Your task to perform on an android device: Empty the shopping cart on target. Image 0: 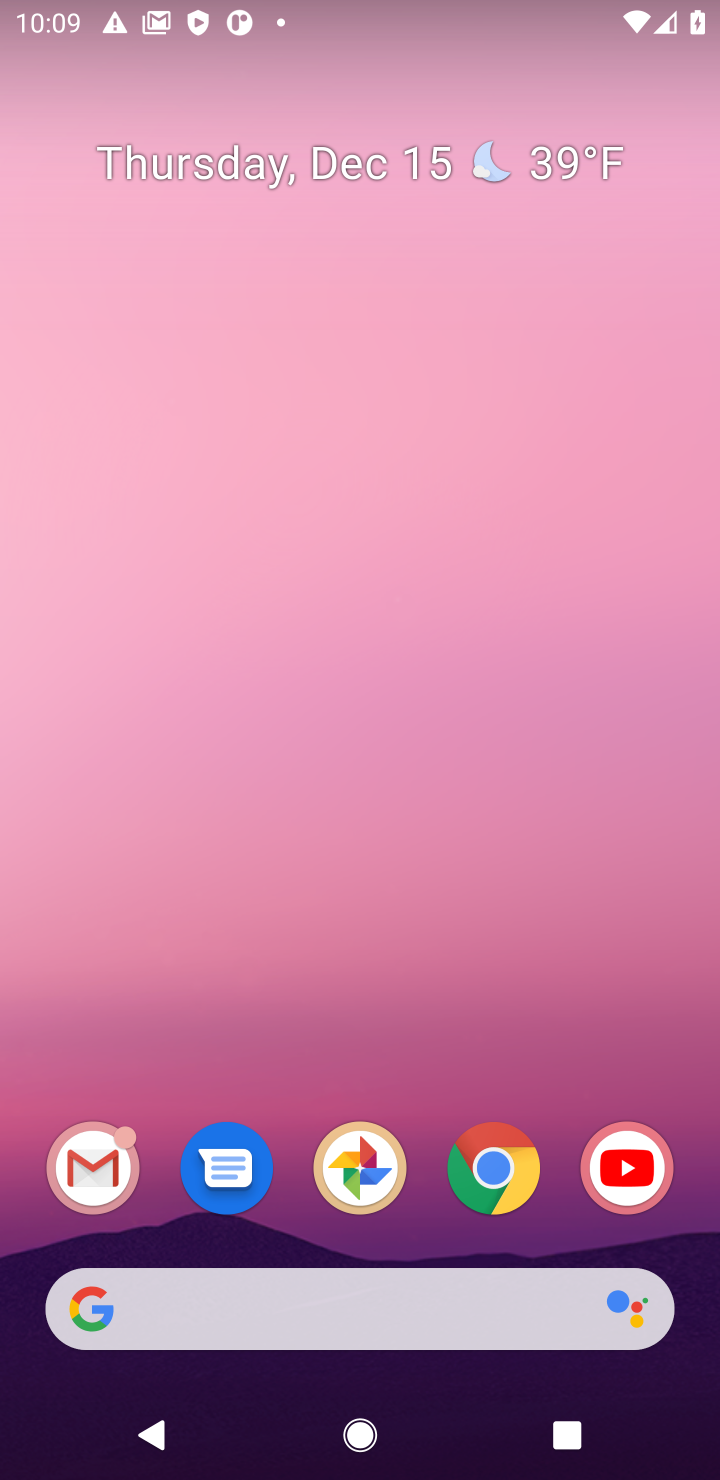
Step 0: click (497, 1134)
Your task to perform on an android device: Empty the shopping cart on target. Image 1: 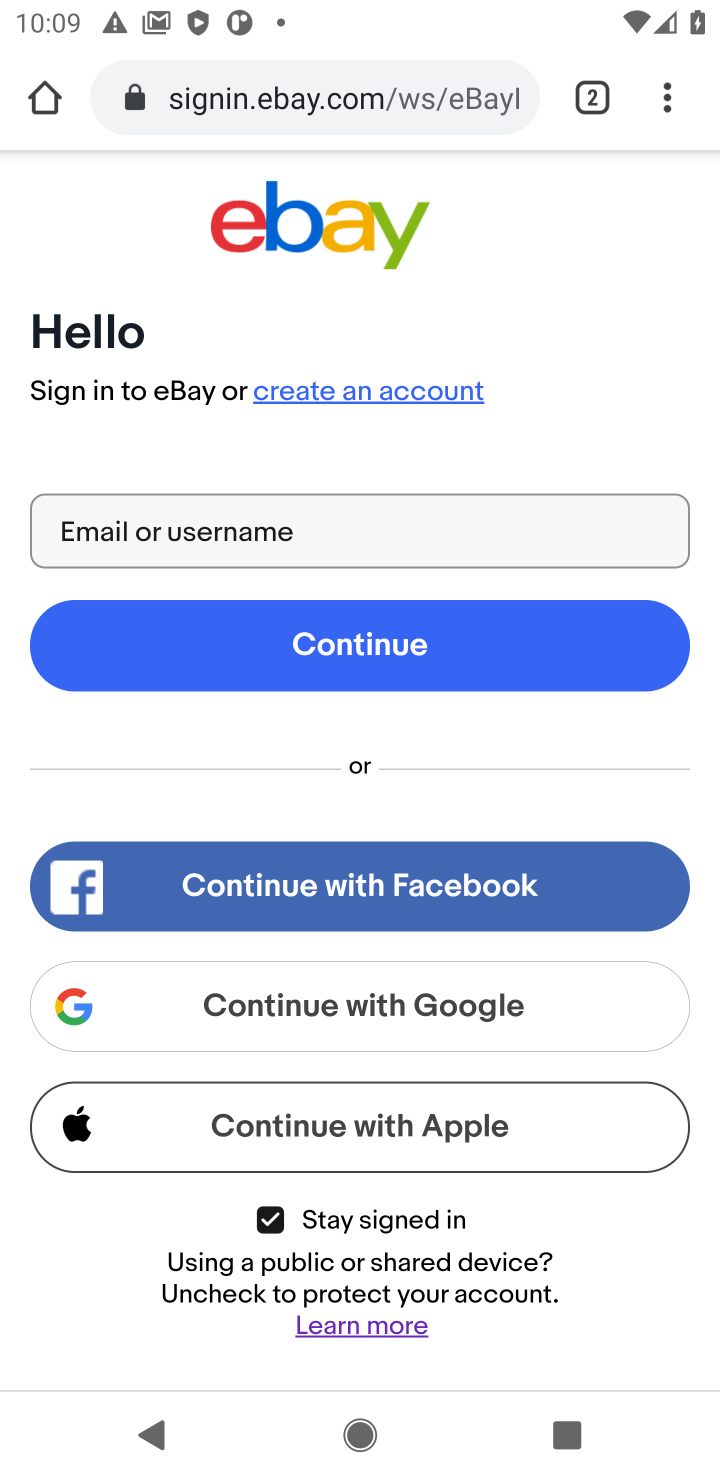
Step 1: click (351, 70)
Your task to perform on an android device: Empty the shopping cart on target. Image 2: 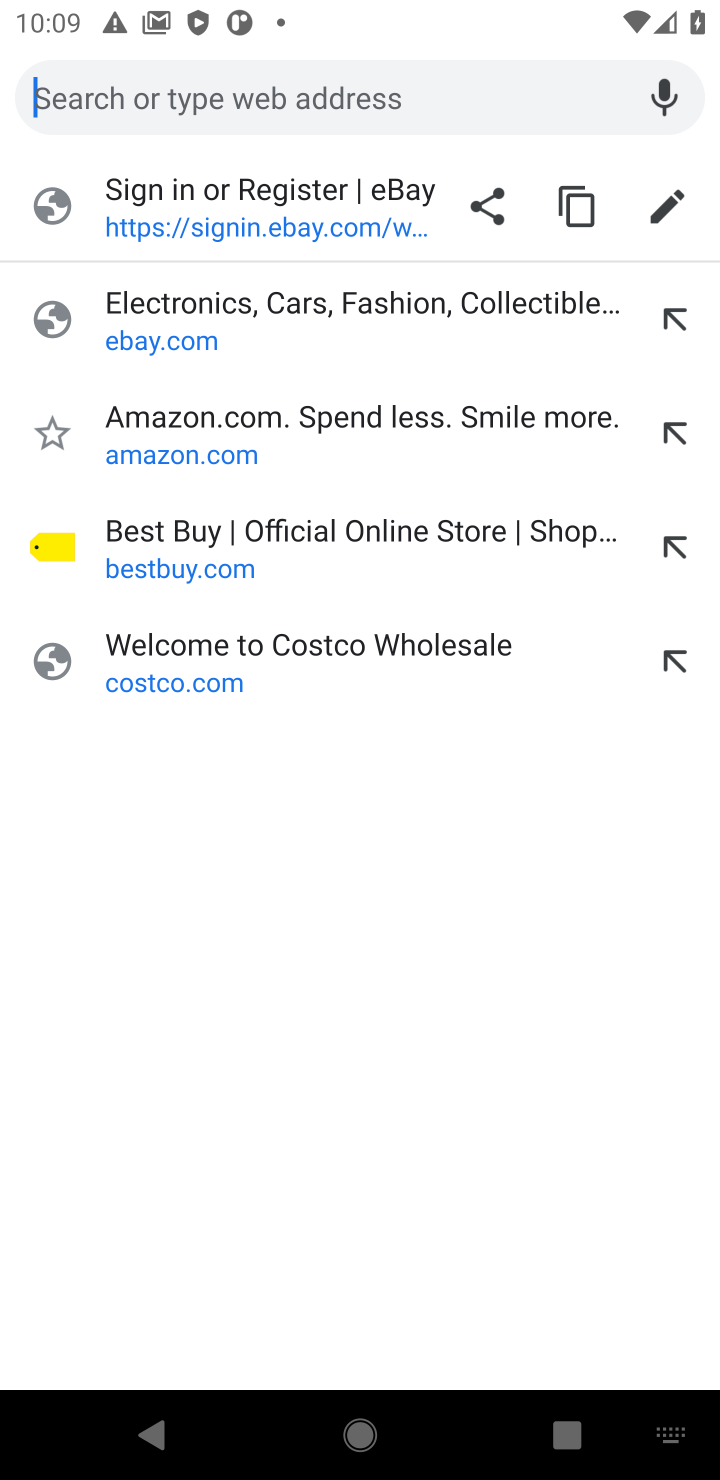
Step 2: type "target"
Your task to perform on an android device: Empty the shopping cart on target. Image 3: 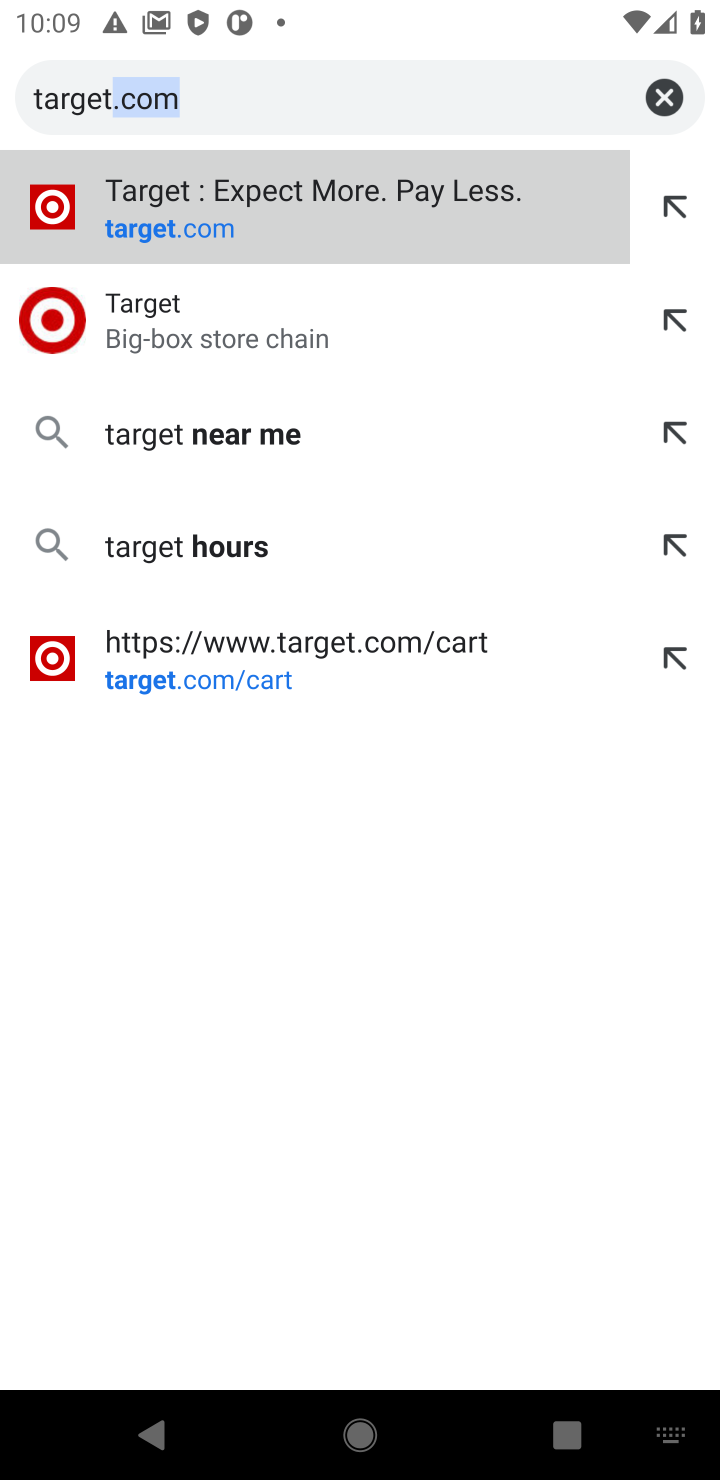
Step 3: click (183, 193)
Your task to perform on an android device: Empty the shopping cart on target. Image 4: 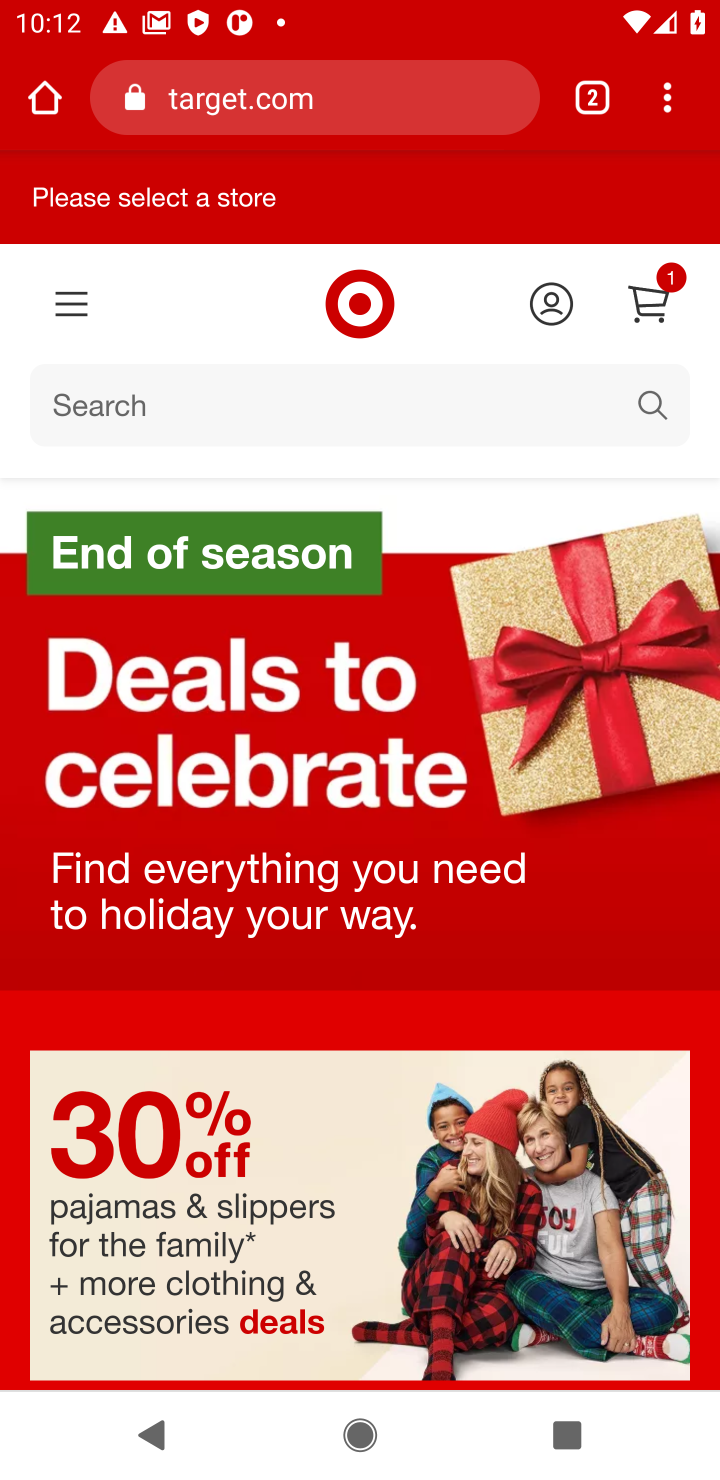
Step 4: task complete